Your task to perform on an android device: Open Google Image 0: 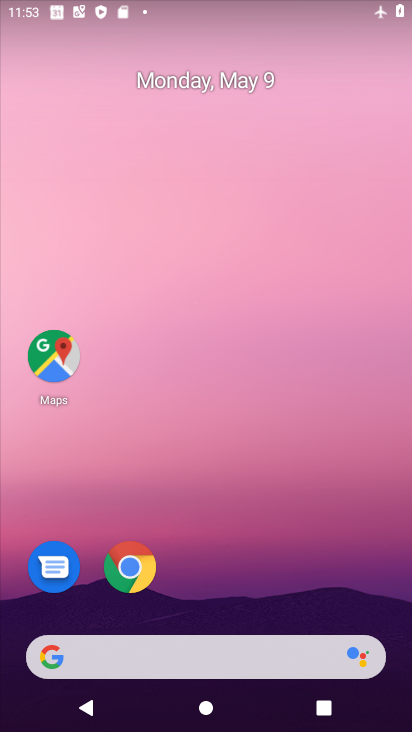
Step 0: drag from (400, 606) to (328, 53)
Your task to perform on an android device: Open Google Image 1: 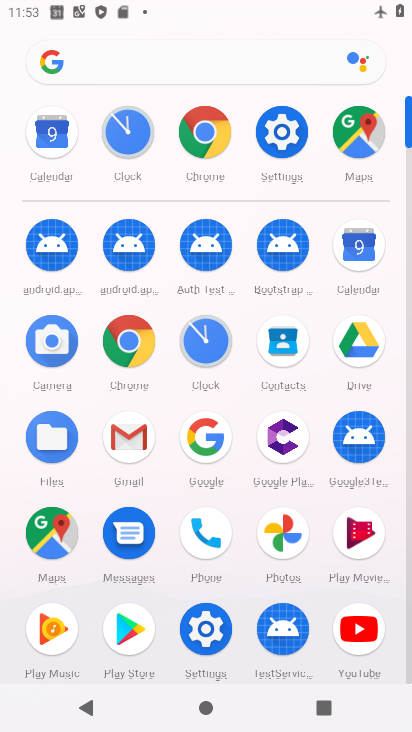
Step 1: click (199, 433)
Your task to perform on an android device: Open Google Image 2: 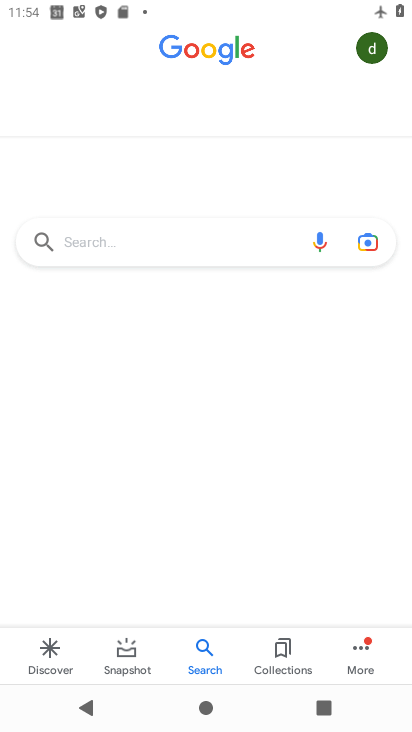
Step 2: task complete